Your task to perform on an android device: Go to network settings Image 0: 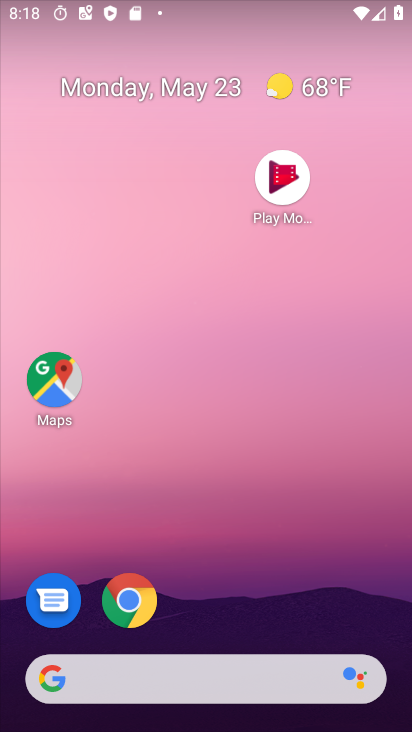
Step 0: drag from (399, 710) to (236, 131)
Your task to perform on an android device: Go to network settings Image 1: 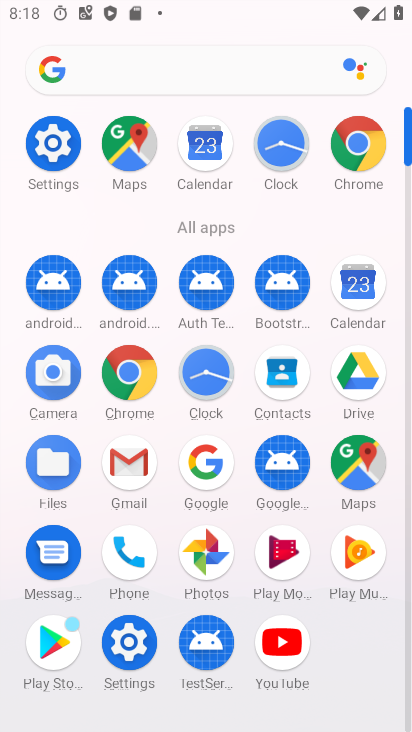
Step 1: click (43, 148)
Your task to perform on an android device: Go to network settings Image 2: 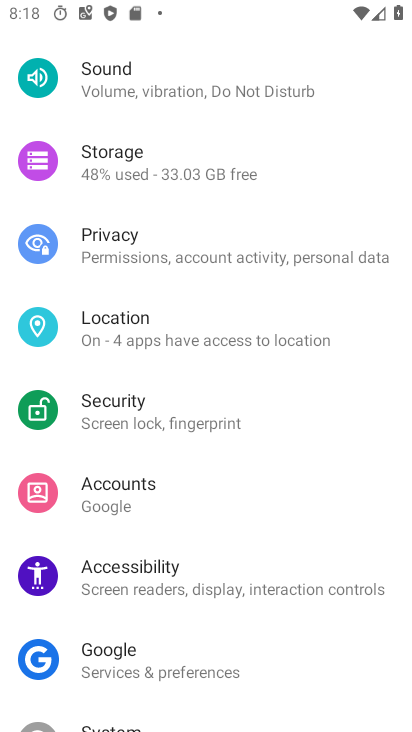
Step 2: drag from (184, 572) to (120, 145)
Your task to perform on an android device: Go to network settings Image 3: 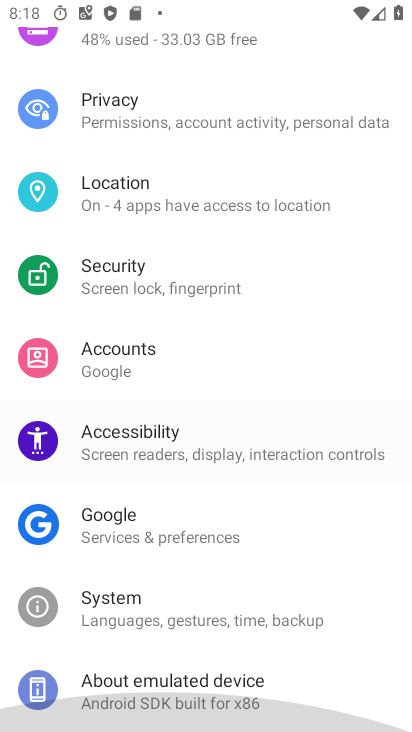
Step 3: drag from (153, 497) to (75, 168)
Your task to perform on an android device: Go to network settings Image 4: 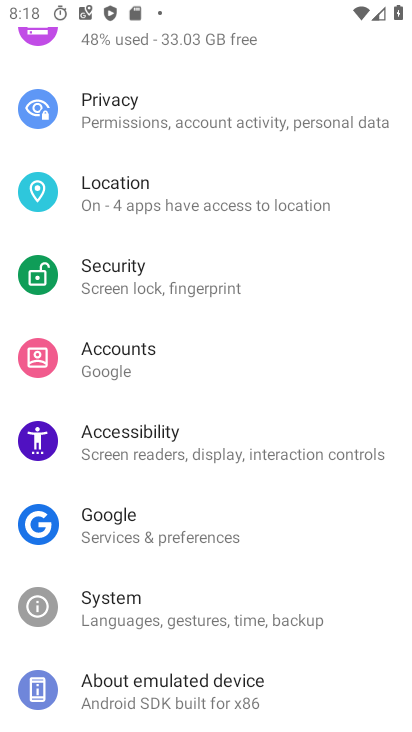
Step 4: drag from (183, 463) to (150, 168)
Your task to perform on an android device: Go to network settings Image 5: 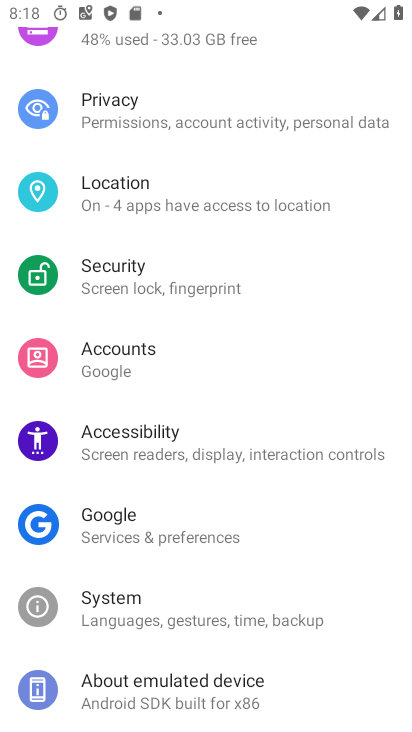
Step 5: drag from (228, 548) to (166, 137)
Your task to perform on an android device: Go to network settings Image 6: 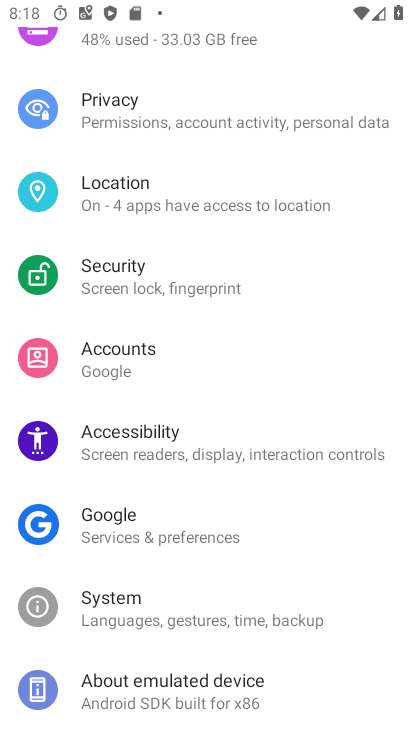
Step 6: drag from (200, 613) to (149, 210)
Your task to perform on an android device: Go to network settings Image 7: 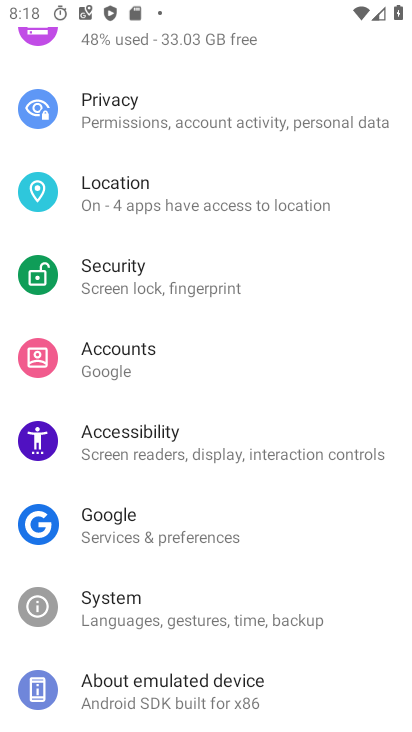
Step 7: drag from (116, 235) to (174, 567)
Your task to perform on an android device: Go to network settings Image 8: 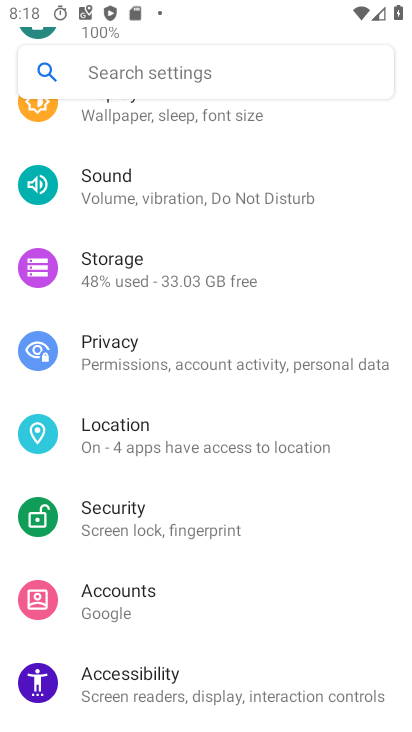
Step 8: drag from (188, 313) to (237, 659)
Your task to perform on an android device: Go to network settings Image 9: 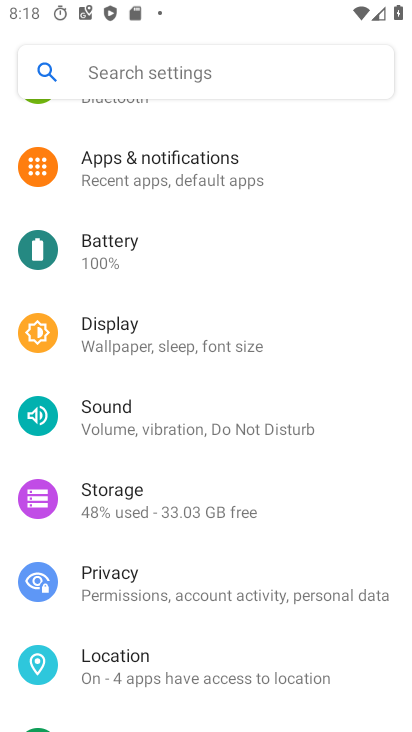
Step 9: drag from (198, 162) to (243, 541)
Your task to perform on an android device: Go to network settings Image 10: 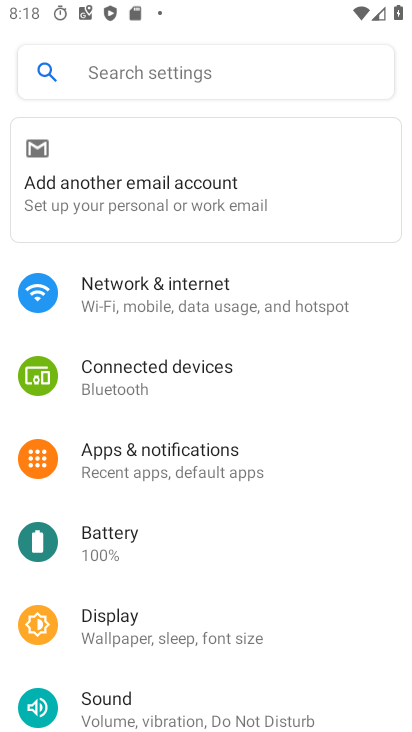
Step 10: click (169, 299)
Your task to perform on an android device: Go to network settings Image 11: 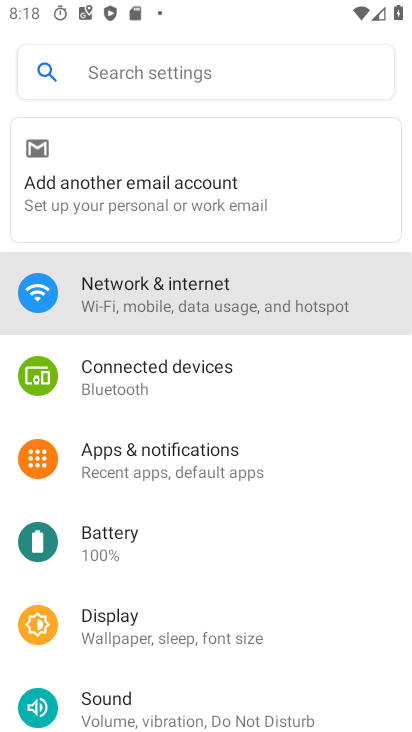
Step 11: click (172, 297)
Your task to perform on an android device: Go to network settings Image 12: 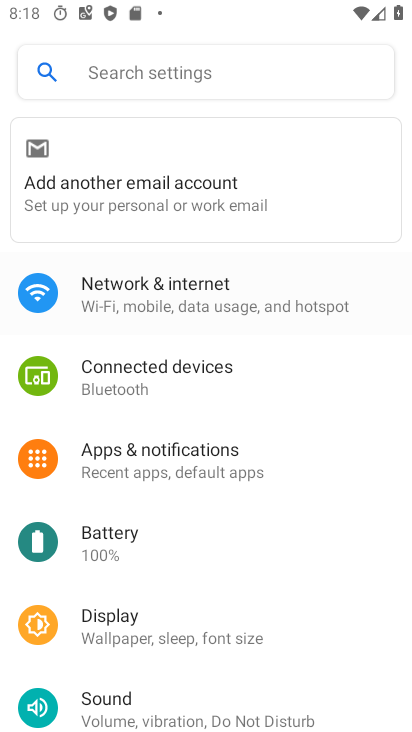
Step 12: click (172, 297)
Your task to perform on an android device: Go to network settings Image 13: 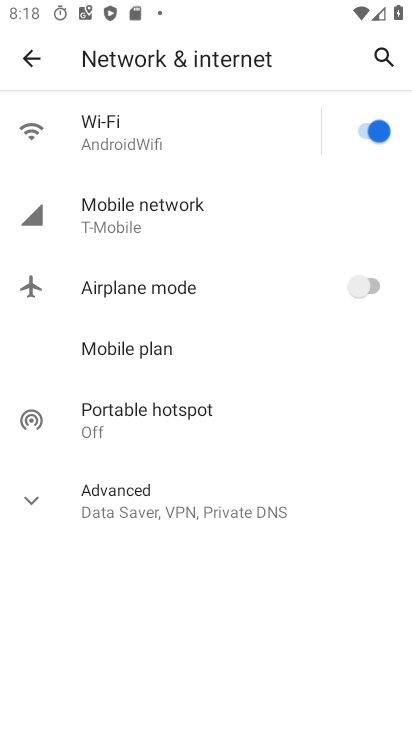
Step 13: click (159, 291)
Your task to perform on an android device: Go to network settings Image 14: 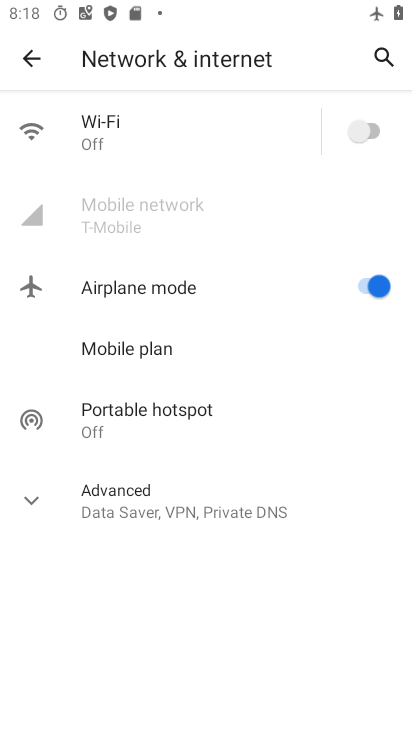
Step 14: click (367, 131)
Your task to perform on an android device: Go to network settings Image 15: 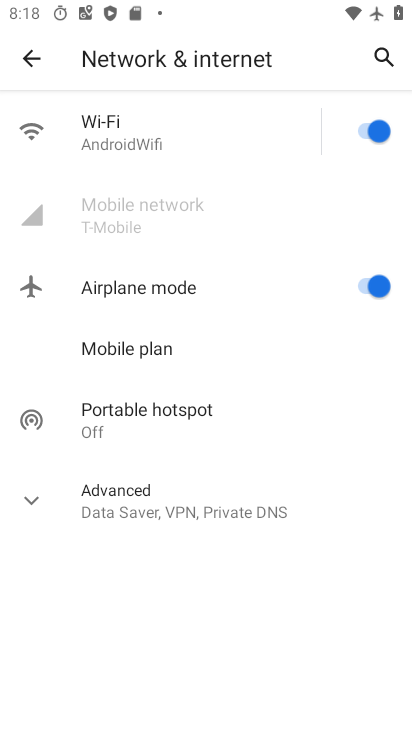
Step 15: task complete